Your task to perform on an android device: set the timer Image 0: 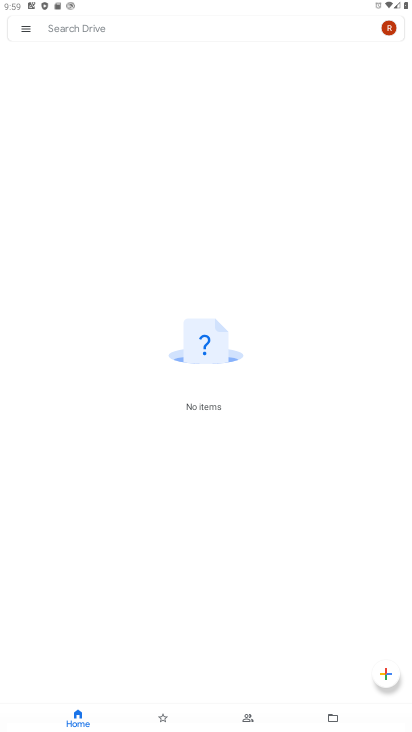
Step 0: press home button
Your task to perform on an android device: set the timer Image 1: 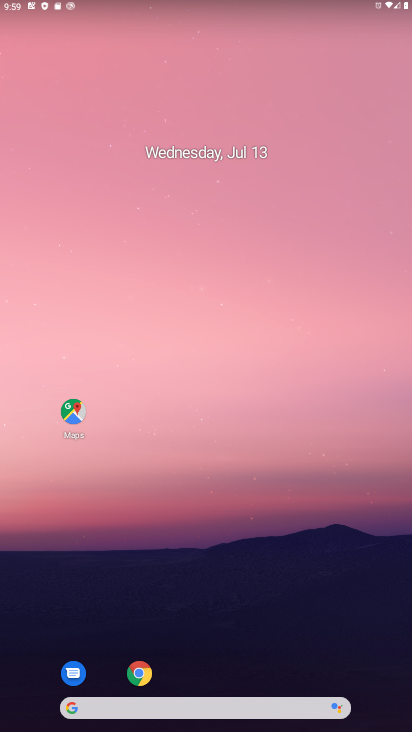
Step 1: drag from (217, 397) to (210, 220)
Your task to perform on an android device: set the timer Image 2: 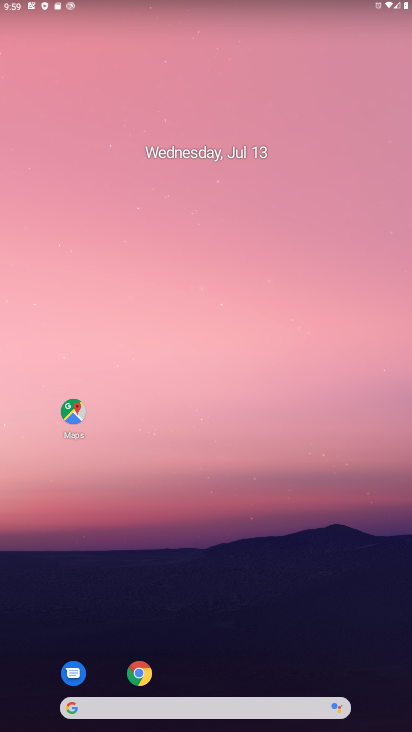
Step 2: drag from (189, 682) to (201, 85)
Your task to perform on an android device: set the timer Image 3: 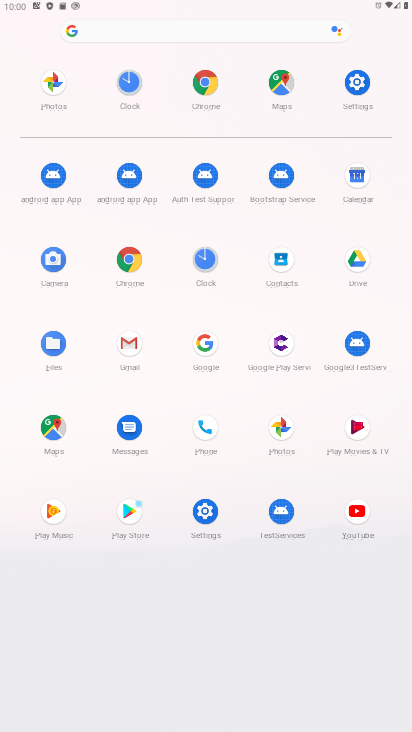
Step 3: click (205, 251)
Your task to perform on an android device: set the timer Image 4: 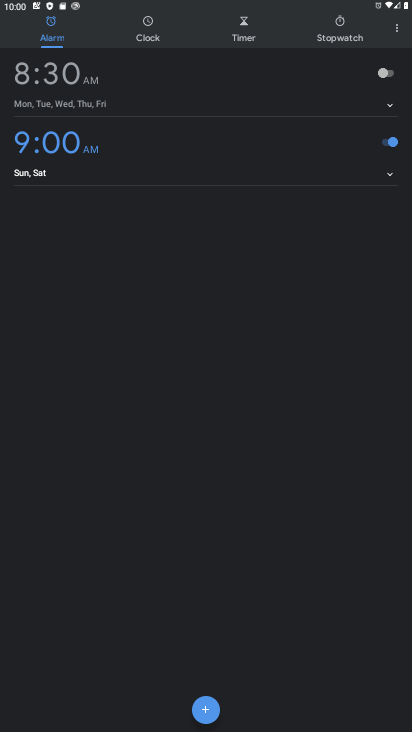
Step 4: click (248, 28)
Your task to perform on an android device: set the timer Image 5: 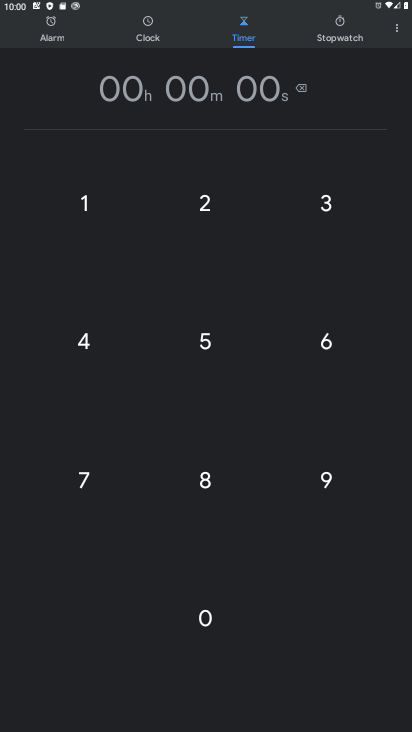
Step 5: click (208, 223)
Your task to perform on an android device: set the timer Image 6: 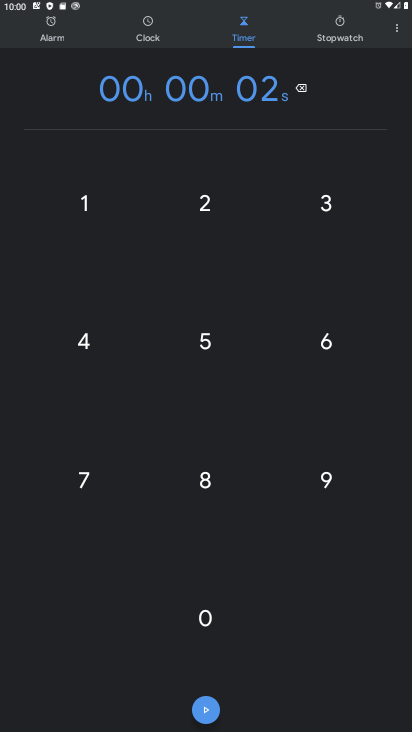
Step 6: task complete